Your task to perform on an android device: turn on javascript in the chrome app Image 0: 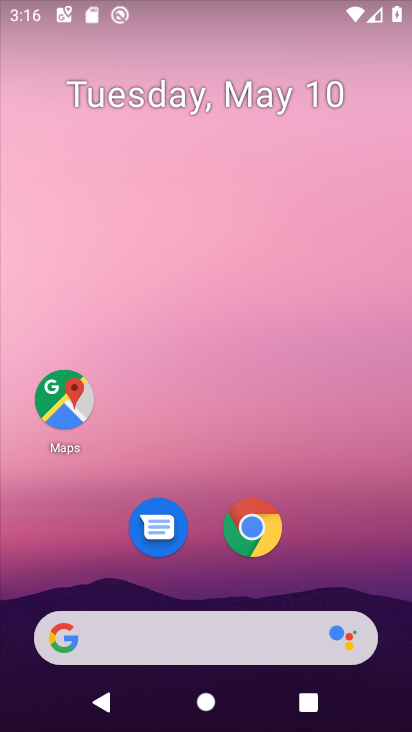
Step 0: click (259, 537)
Your task to perform on an android device: turn on javascript in the chrome app Image 1: 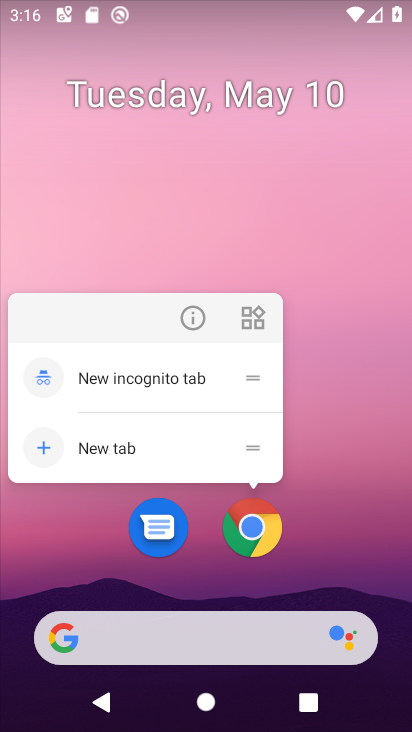
Step 1: click (259, 537)
Your task to perform on an android device: turn on javascript in the chrome app Image 2: 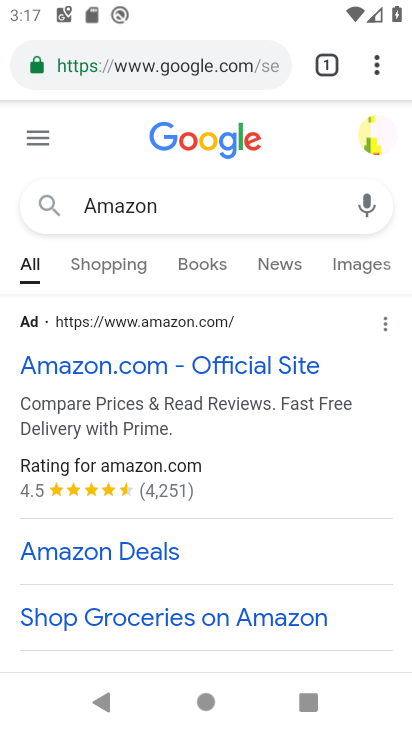
Step 2: click (373, 68)
Your task to perform on an android device: turn on javascript in the chrome app Image 3: 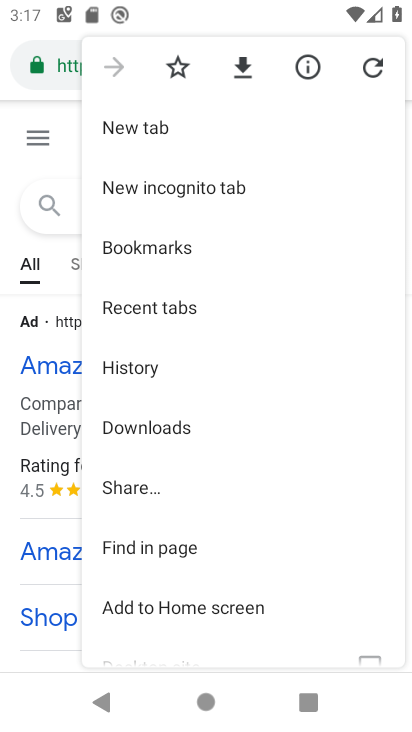
Step 3: drag from (308, 558) to (301, 309)
Your task to perform on an android device: turn on javascript in the chrome app Image 4: 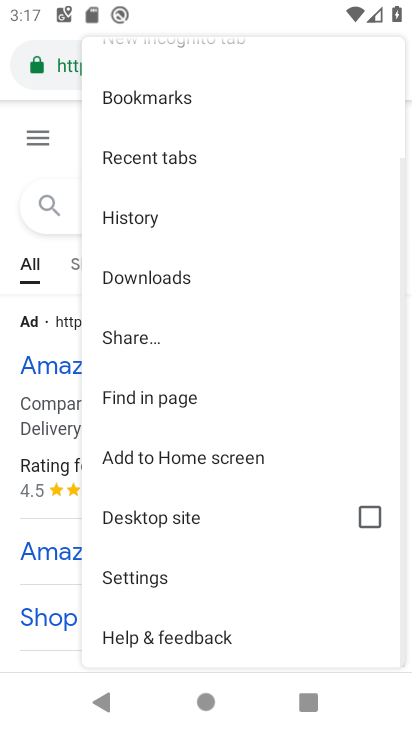
Step 4: drag from (298, 592) to (295, 319)
Your task to perform on an android device: turn on javascript in the chrome app Image 5: 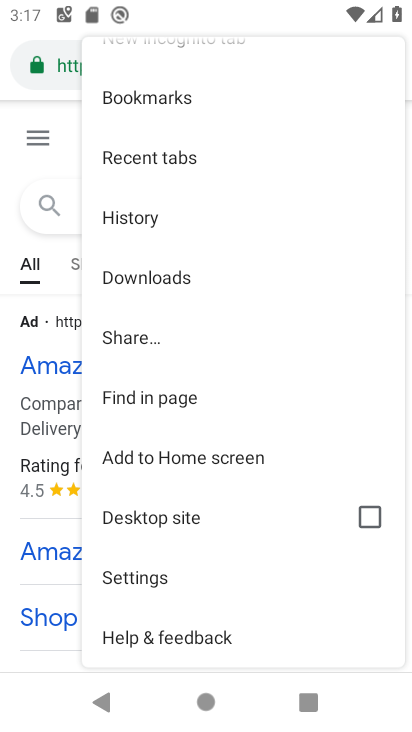
Step 5: click (138, 576)
Your task to perform on an android device: turn on javascript in the chrome app Image 6: 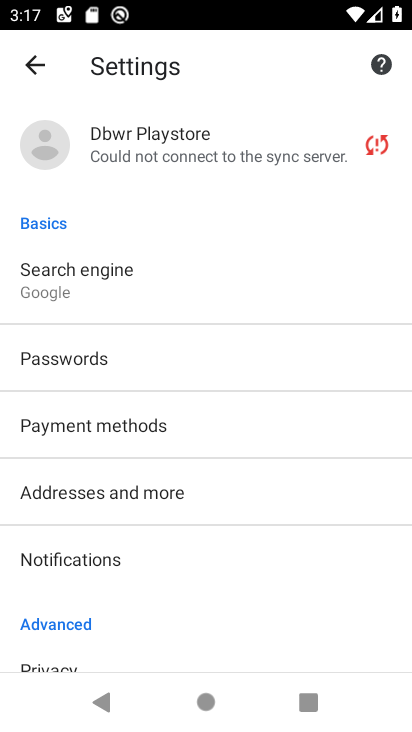
Step 6: drag from (215, 544) to (221, 360)
Your task to perform on an android device: turn on javascript in the chrome app Image 7: 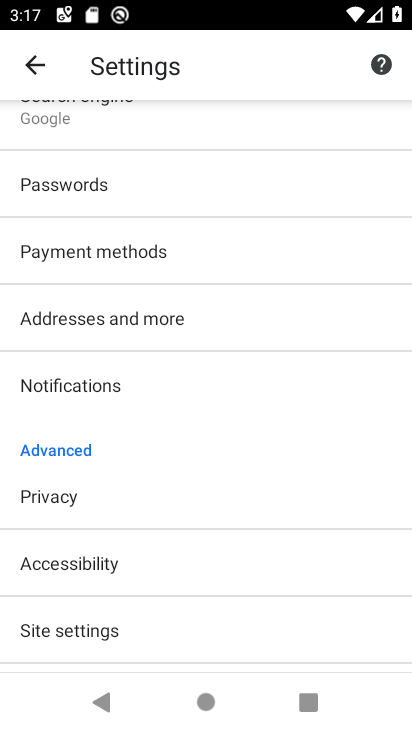
Step 7: drag from (219, 635) to (224, 439)
Your task to perform on an android device: turn on javascript in the chrome app Image 8: 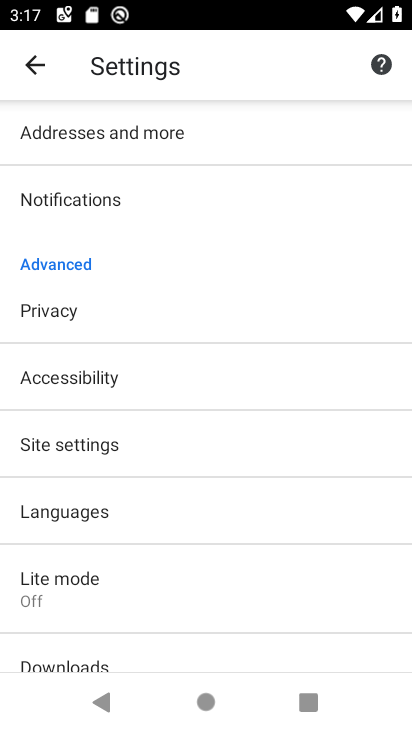
Step 8: drag from (222, 599) to (244, 336)
Your task to perform on an android device: turn on javascript in the chrome app Image 9: 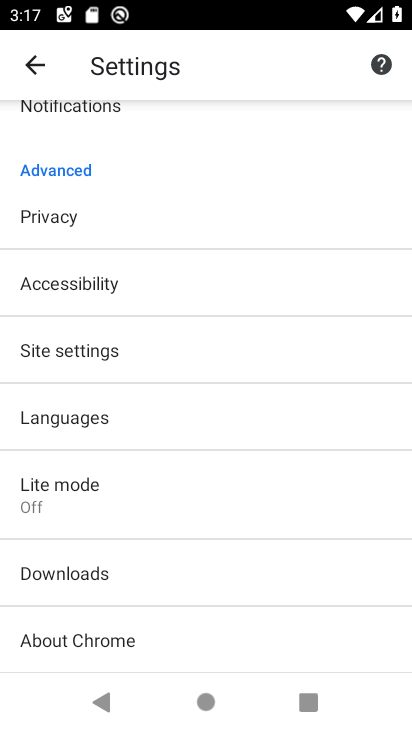
Step 9: click (69, 350)
Your task to perform on an android device: turn on javascript in the chrome app Image 10: 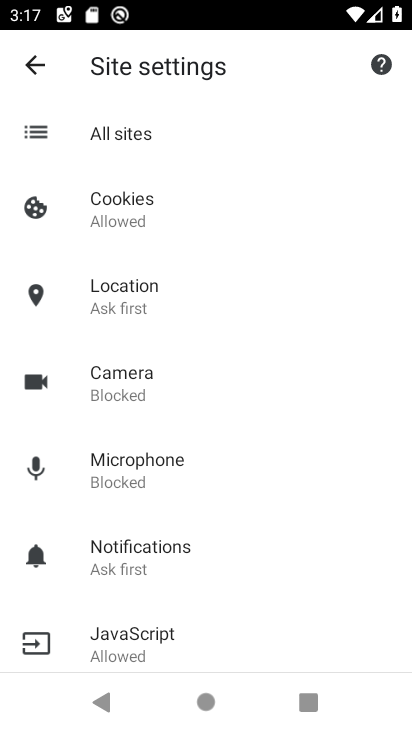
Step 10: click (110, 642)
Your task to perform on an android device: turn on javascript in the chrome app Image 11: 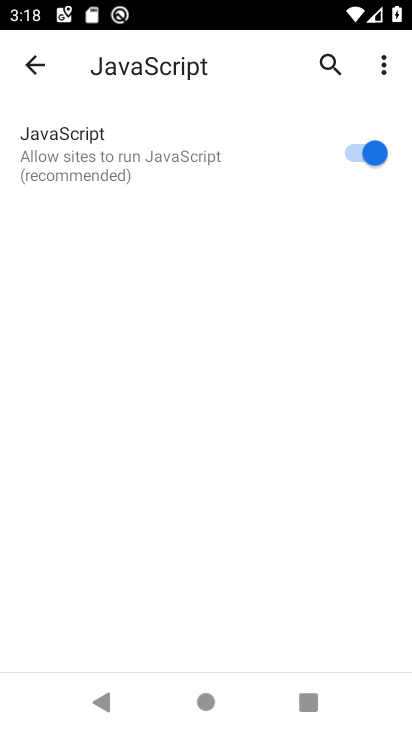
Step 11: task complete